Your task to perform on an android device: Show me popular games on the Play Store Image 0: 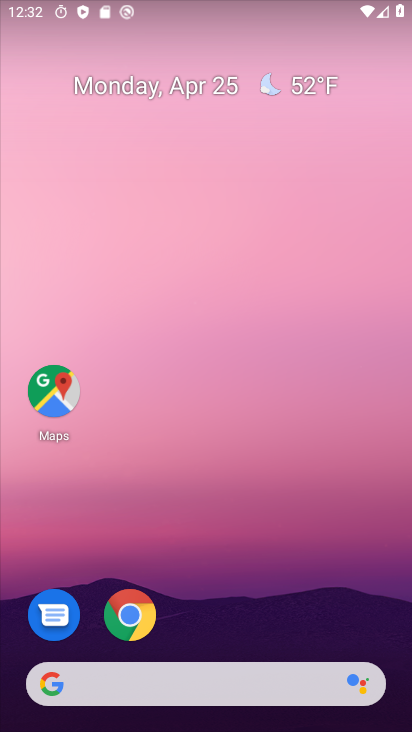
Step 0: drag from (216, 652) to (397, 5)
Your task to perform on an android device: Show me popular games on the Play Store Image 1: 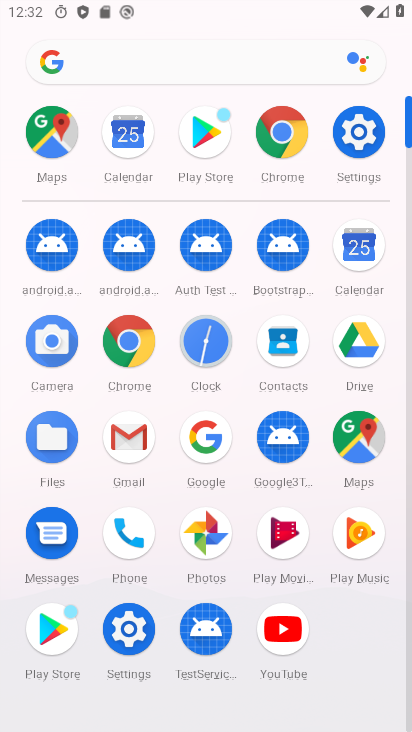
Step 1: click (48, 642)
Your task to perform on an android device: Show me popular games on the Play Store Image 2: 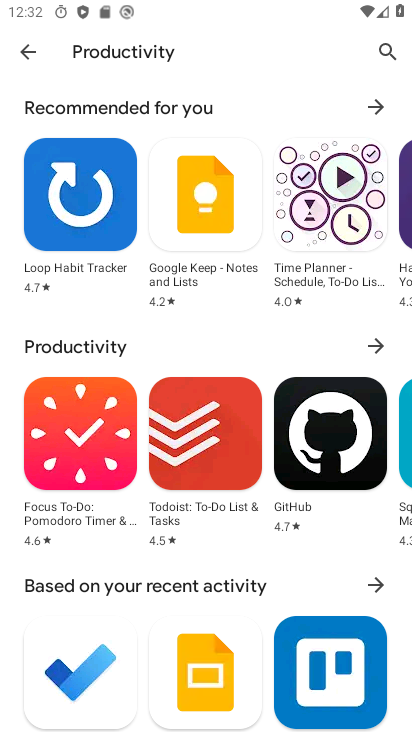
Step 2: click (32, 48)
Your task to perform on an android device: Show me popular games on the Play Store Image 3: 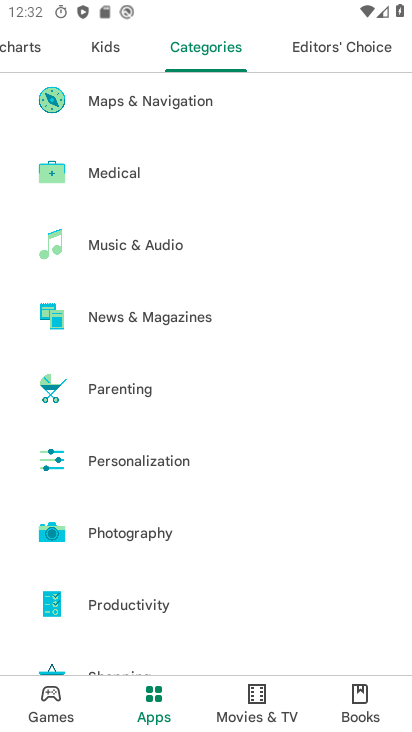
Step 3: click (60, 705)
Your task to perform on an android device: Show me popular games on the Play Store Image 4: 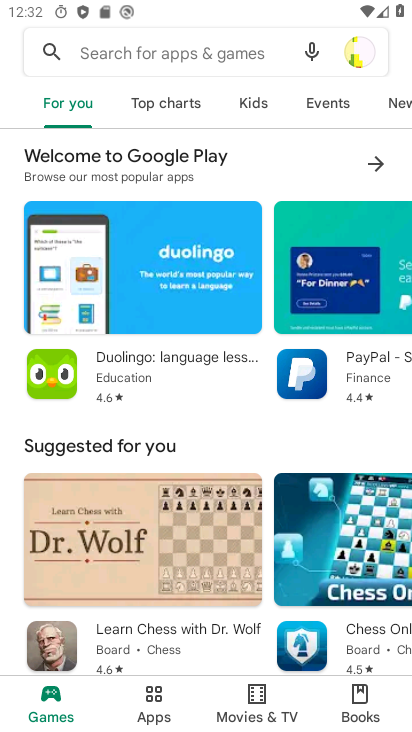
Step 4: task complete